Your task to perform on an android device: Open calendar and show me the first week of next month Image 0: 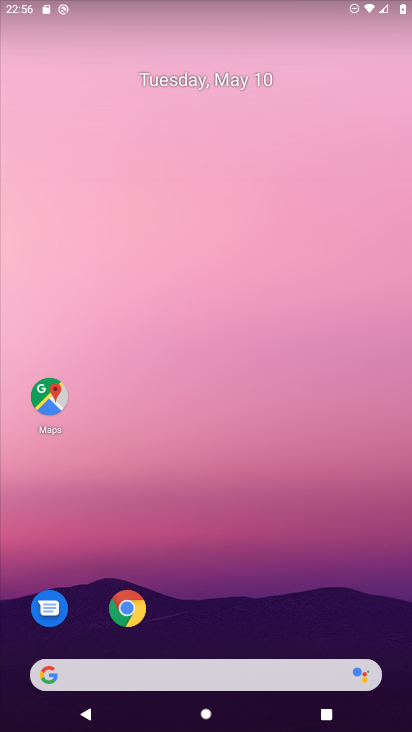
Step 0: drag from (240, 610) to (308, 265)
Your task to perform on an android device: Open calendar and show me the first week of next month Image 1: 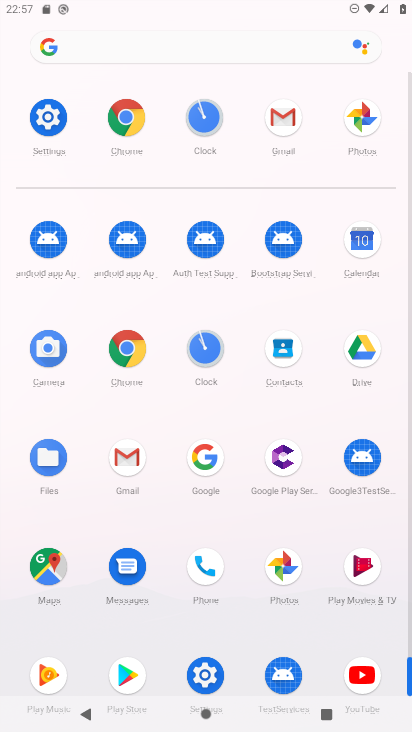
Step 1: click (359, 236)
Your task to perform on an android device: Open calendar and show me the first week of next month Image 2: 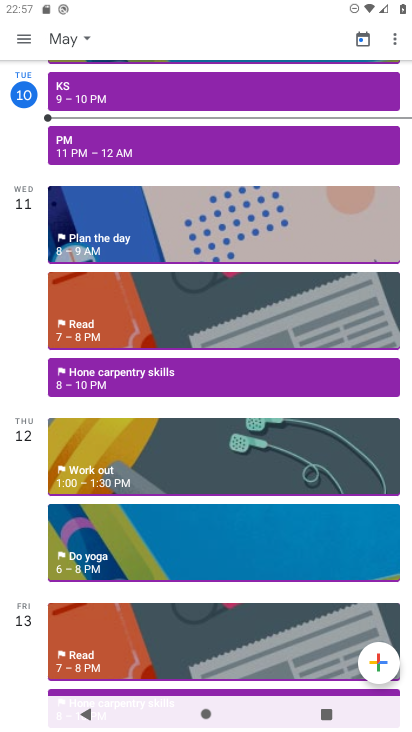
Step 2: click (20, 40)
Your task to perform on an android device: Open calendar and show me the first week of next month Image 3: 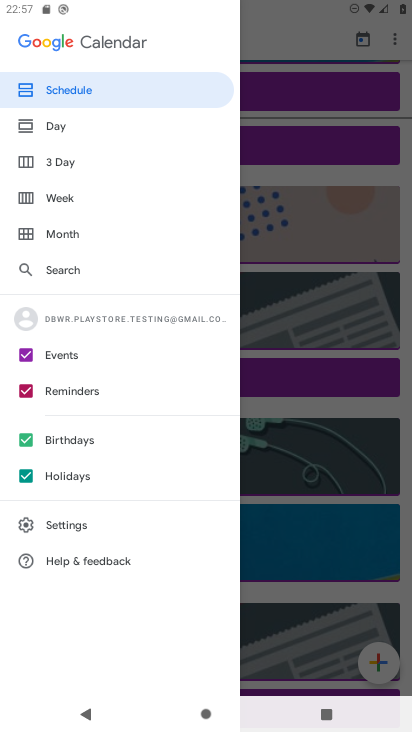
Step 3: click (62, 228)
Your task to perform on an android device: Open calendar and show me the first week of next month Image 4: 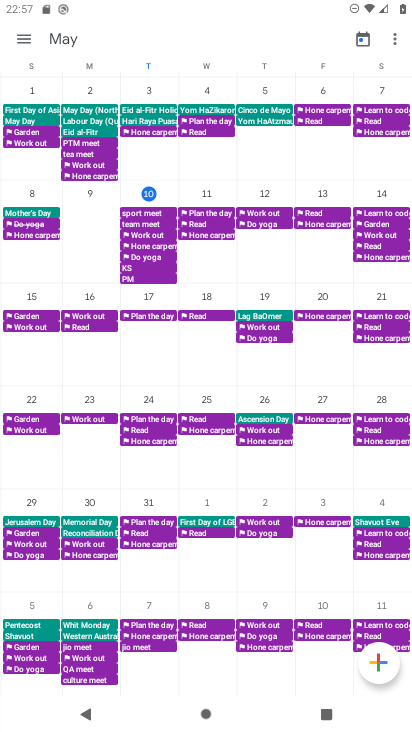
Step 4: task complete